Your task to perform on an android device: Open Yahoo.com Image 0: 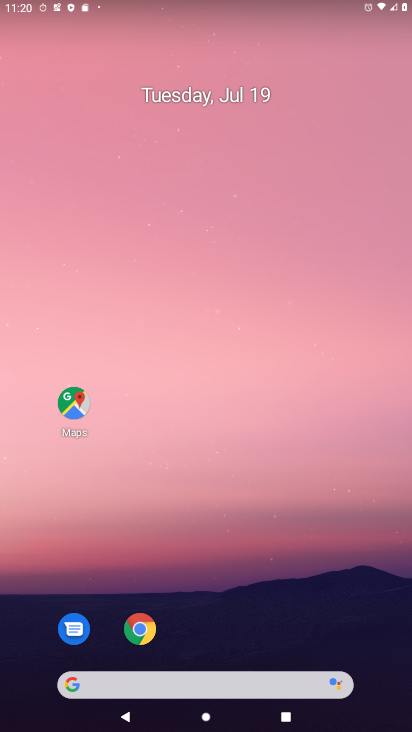
Step 0: drag from (253, 675) to (239, 377)
Your task to perform on an android device: Open Yahoo.com Image 1: 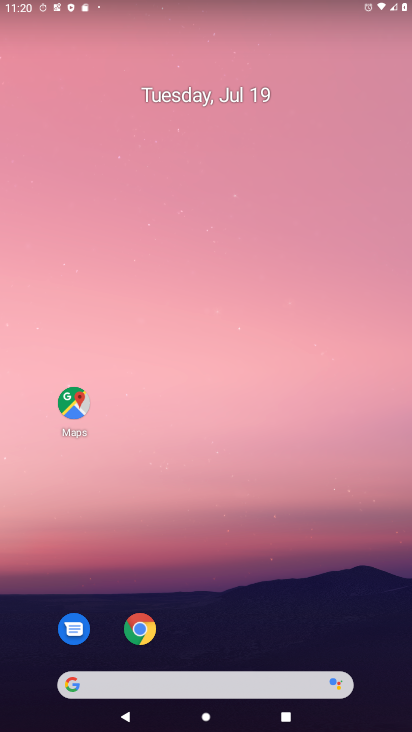
Step 1: drag from (224, 424) to (223, 235)
Your task to perform on an android device: Open Yahoo.com Image 2: 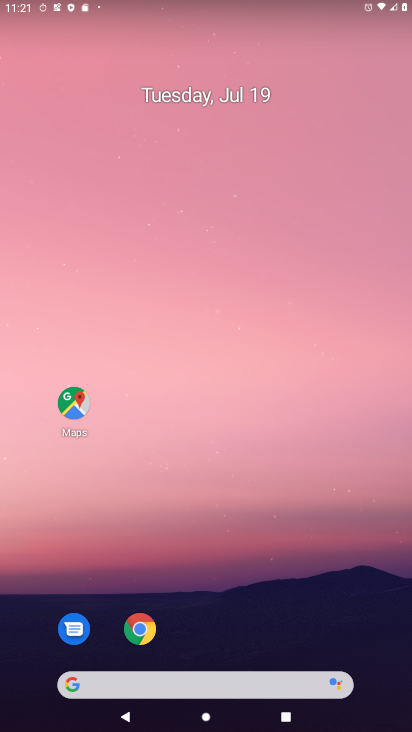
Step 2: drag from (256, 526) to (227, 123)
Your task to perform on an android device: Open Yahoo.com Image 3: 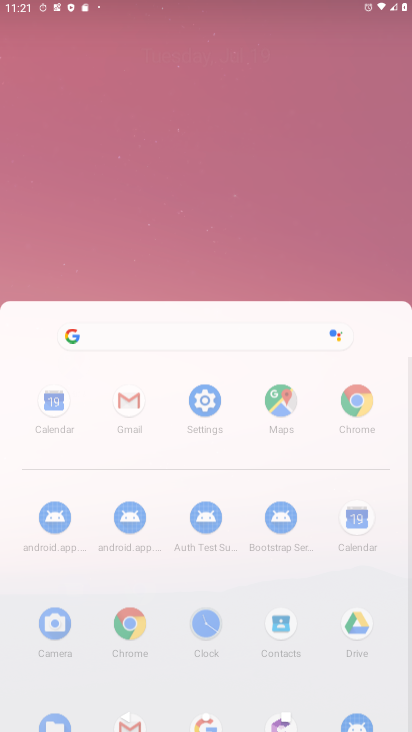
Step 3: drag from (227, 537) to (198, 196)
Your task to perform on an android device: Open Yahoo.com Image 4: 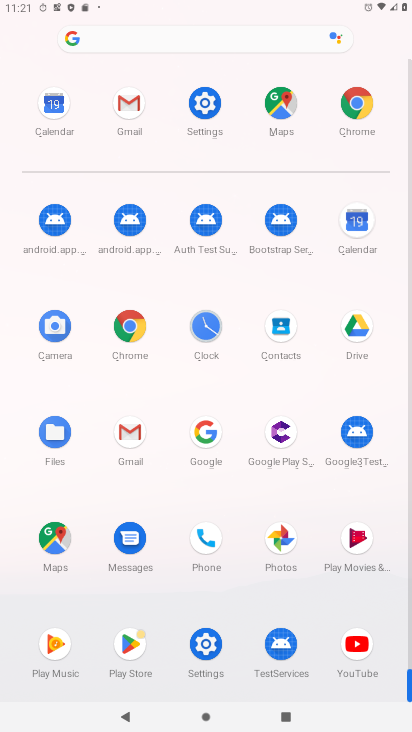
Step 4: drag from (268, 487) to (268, 102)
Your task to perform on an android device: Open Yahoo.com Image 5: 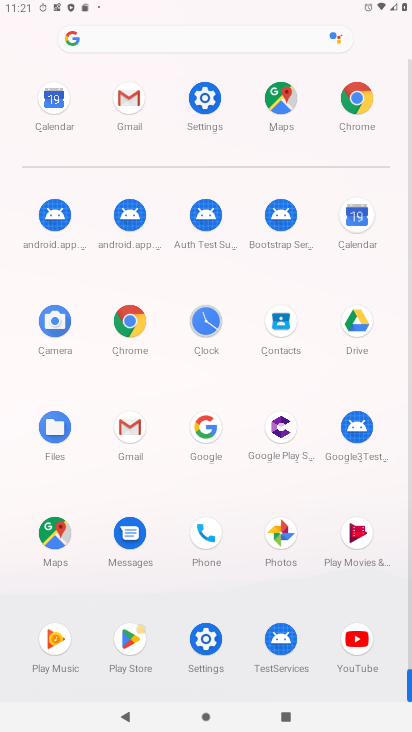
Step 5: click (358, 98)
Your task to perform on an android device: Open Yahoo.com Image 6: 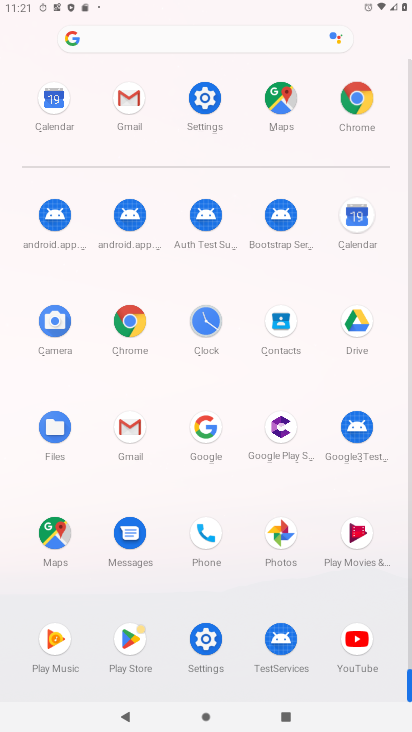
Step 6: click (357, 99)
Your task to perform on an android device: Open Yahoo.com Image 7: 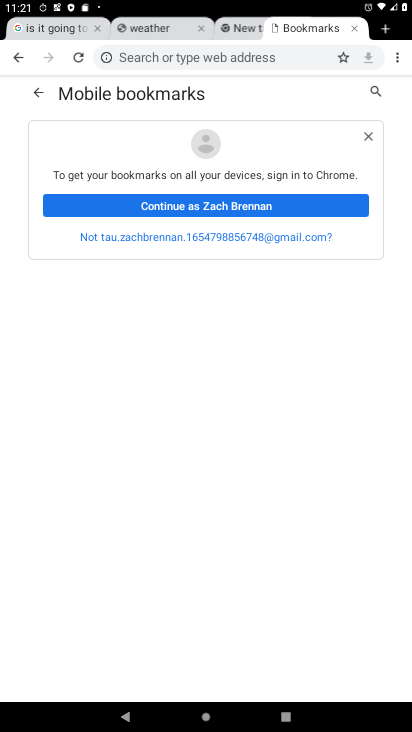
Step 7: drag from (402, 57) to (280, 55)
Your task to perform on an android device: Open Yahoo.com Image 8: 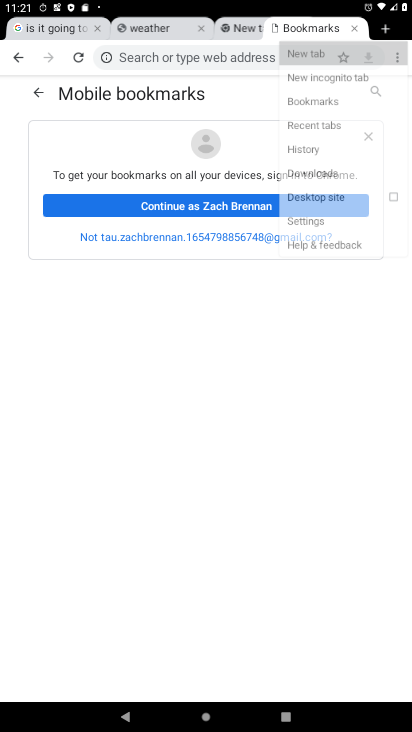
Step 8: click (280, 54)
Your task to perform on an android device: Open Yahoo.com Image 9: 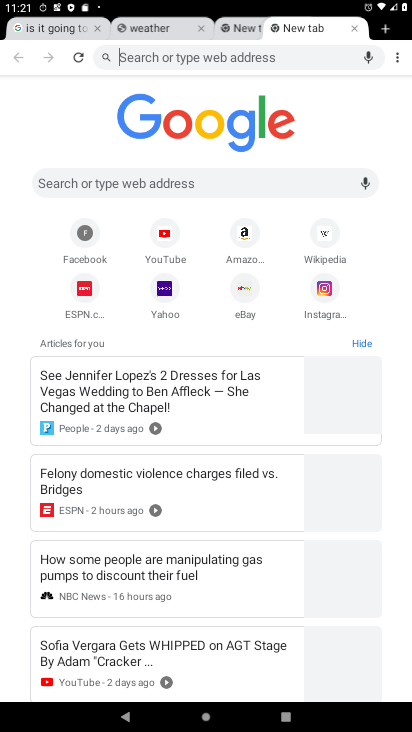
Step 9: click (283, 58)
Your task to perform on an android device: Open Yahoo.com Image 10: 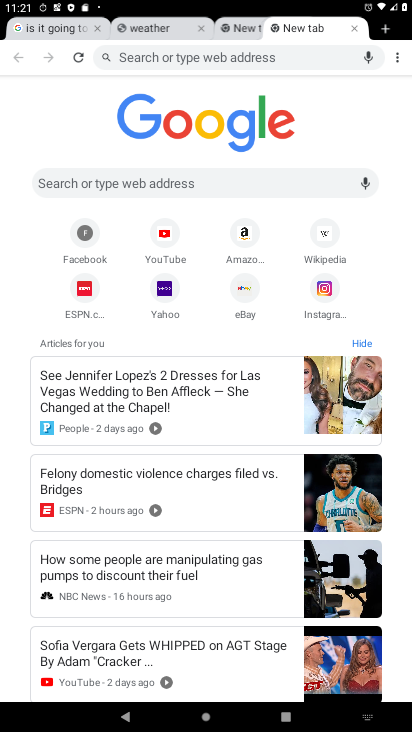
Step 10: click (153, 281)
Your task to perform on an android device: Open Yahoo.com Image 11: 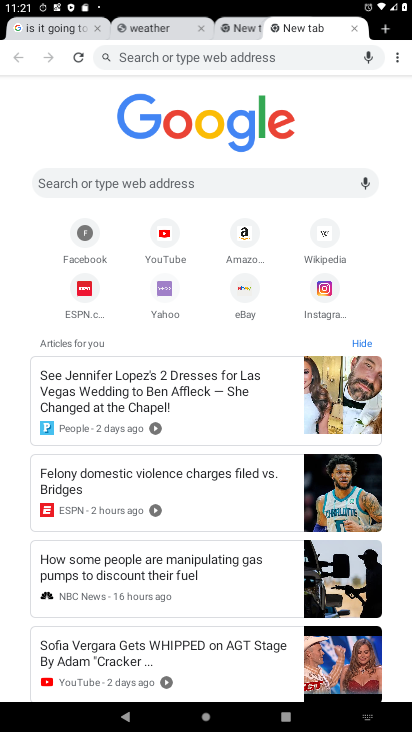
Step 11: click (159, 298)
Your task to perform on an android device: Open Yahoo.com Image 12: 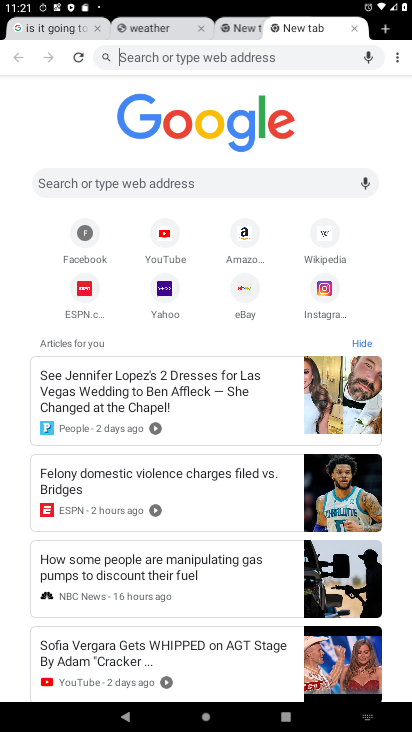
Step 12: click (163, 298)
Your task to perform on an android device: Open Yahoo.com Image 13: 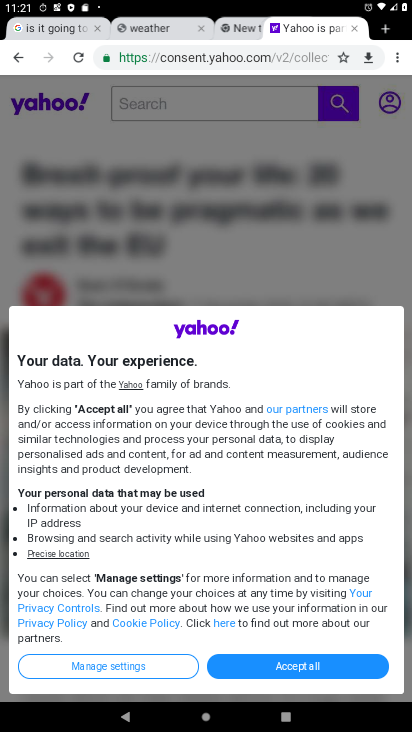
Step 13: task complete